Your task to perform on an android device: change text size in settings app Image 0: 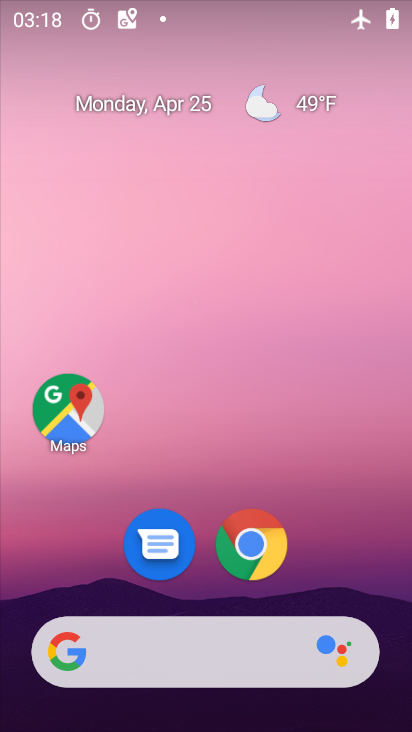
Step 0: drag from (212, 476) to (247, 3)
Your task to perform on an android device: change text size in settings app Image 1: 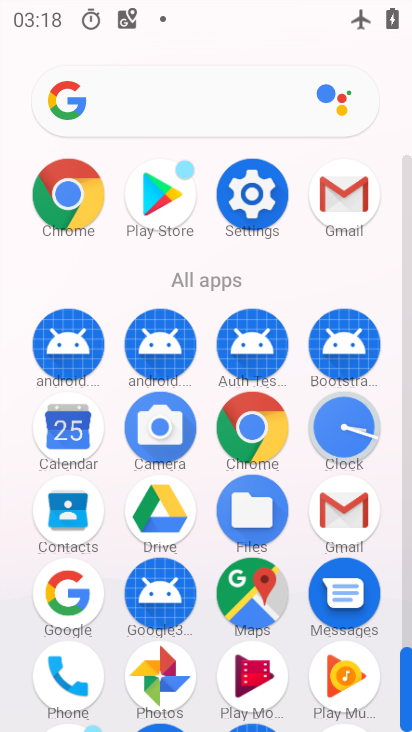
Step 1: click (250, 192)
Your task to perform on an android device: change text size in settings app Image 2: 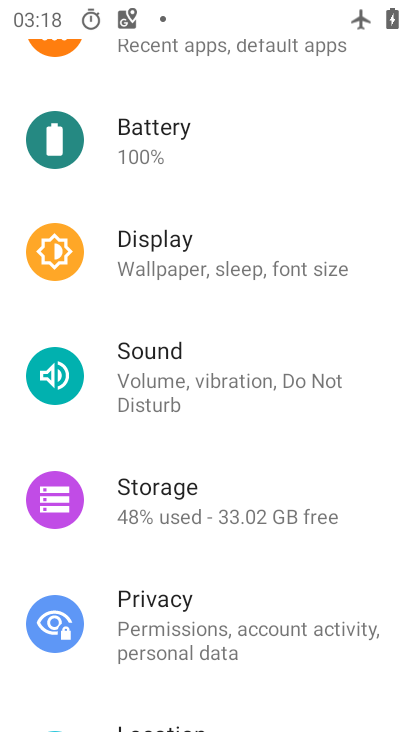
Step 2: drag from (219, 571) to (276, 469)
Your task to perform on an android device: change text size in settings app Image 3: 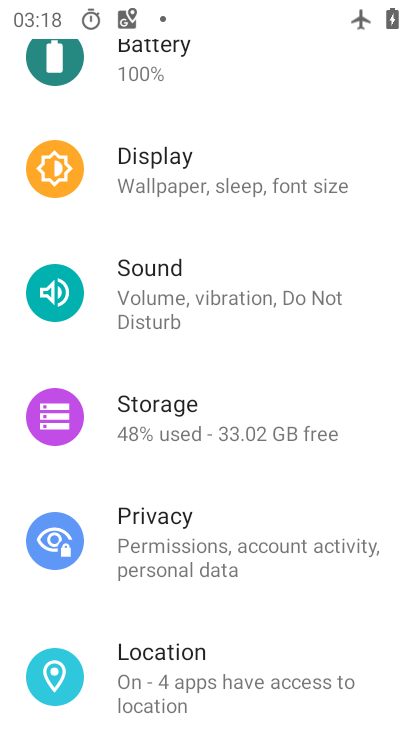
Step 3: drag from (238, 604) to (251, 496)
Your task to perform on an android device: change text size in settings app Image 4: 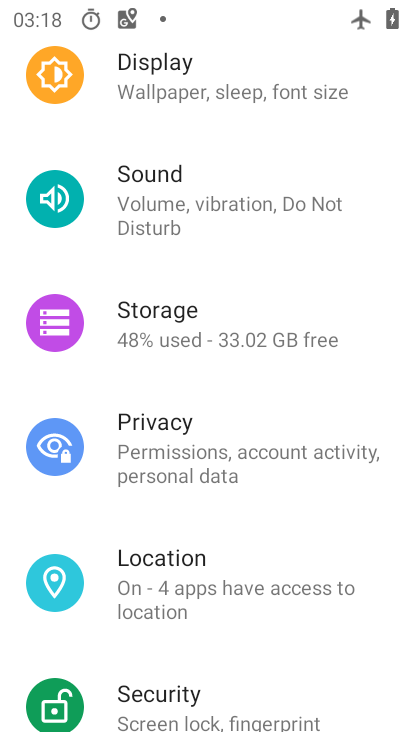
Step 4: drag from (236, 543) to (299, 401)
Your task to perform on an android device: change text size in settings app Image 5: 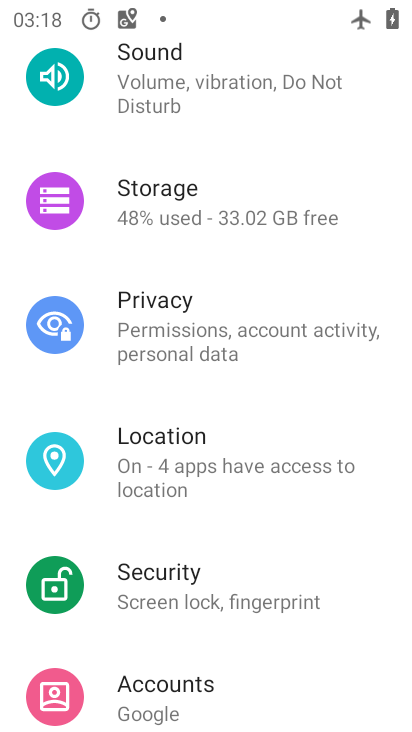
Step 5: drag from (234, 554) to (255, 415)
Your task to perform on an android device: change text size in settings app Image 6: 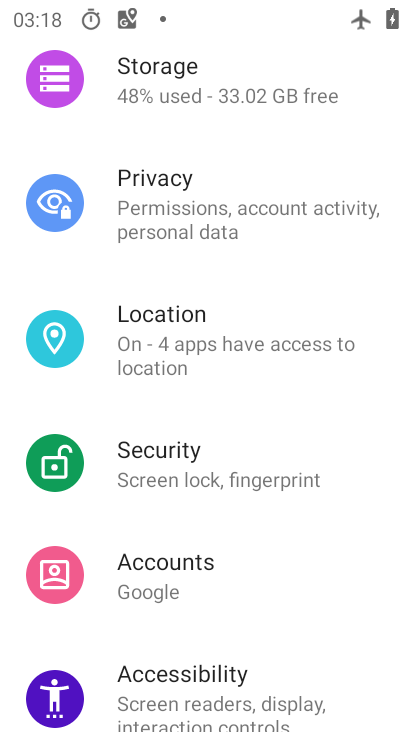
Step 6: drag from (216, 534) to (278, 430)
Your task to perform on an android device: change text size in settings app Image 7: 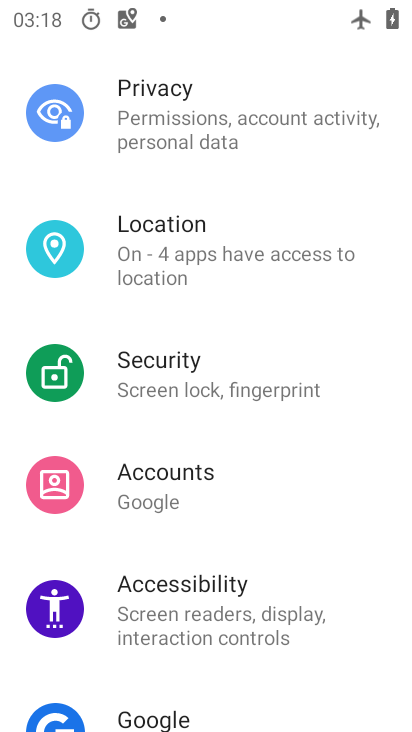
Step 7: drag from (228, 564) to (270, 449)
Your task to perform on an android device: change text size in settings app Image 8: 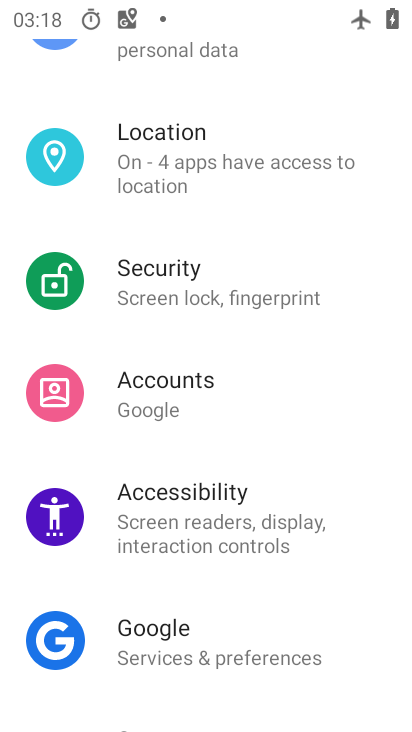
Step 8: drag from (197, 620) to (267, 472)
Your task to perform on an android device: change text size in settings app Image 9: 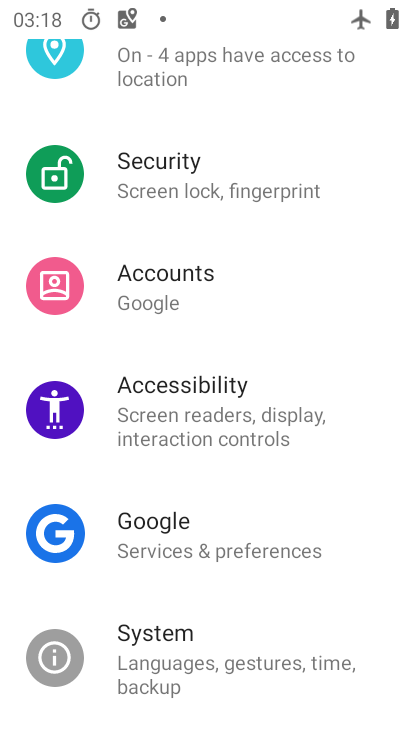
Step 9: drag from (197, 595) to (266, 499)
Your task to perform on an android device: change text size in settings app Image 10: 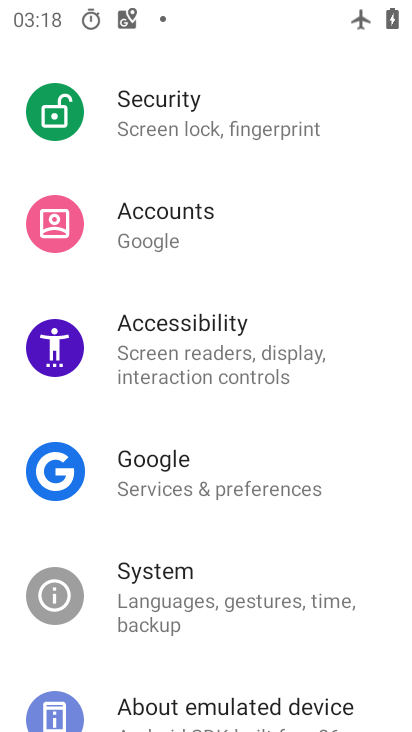
Step 10: drag from (194, 656) to (285, 534)
Your task to perform on an android device: change text size in settings app Image 11: 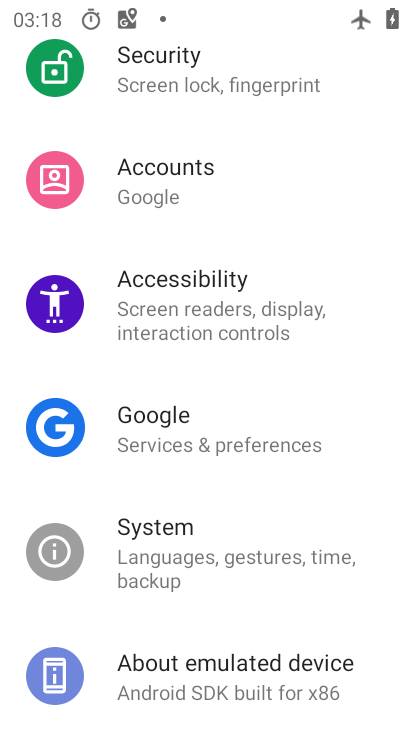
Step 11: click (200, 283)
Your task to perform on an android device: change text size in settings app Image 12: 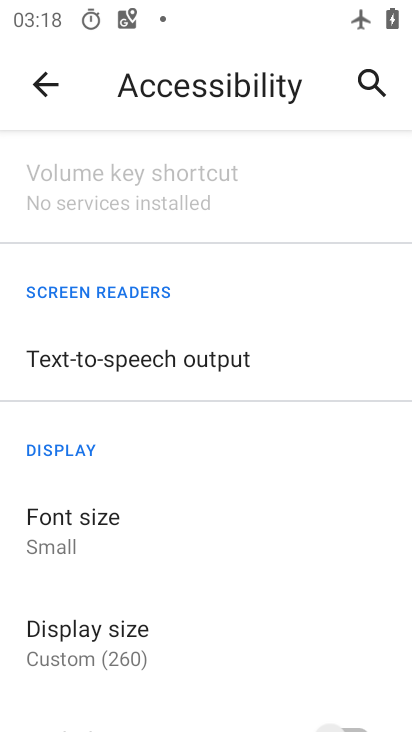
Step 12: click (73, 514)
Your task to perform on an android device: change text size in settings app Image 13: 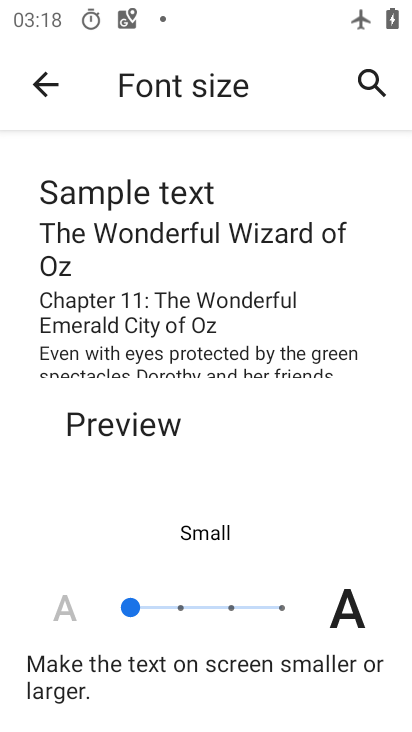
Step 13: click (173, 602)
Your task to perform on an android device: change text size in settings app Image 14: 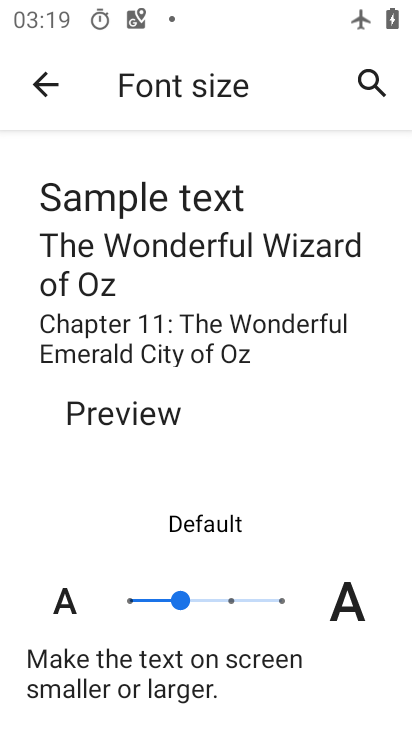
Step 14: task complete